Your task to perform on an android device: Open wifi settings Image 0: 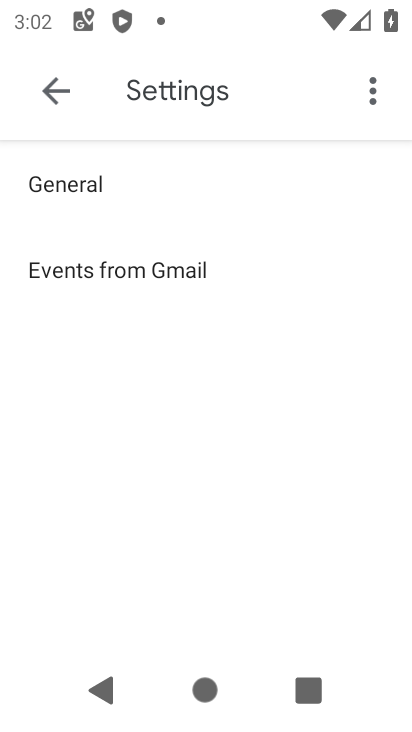
Step 0: press home button
Your task to perform on an android device: Open wifi settings Image 1: 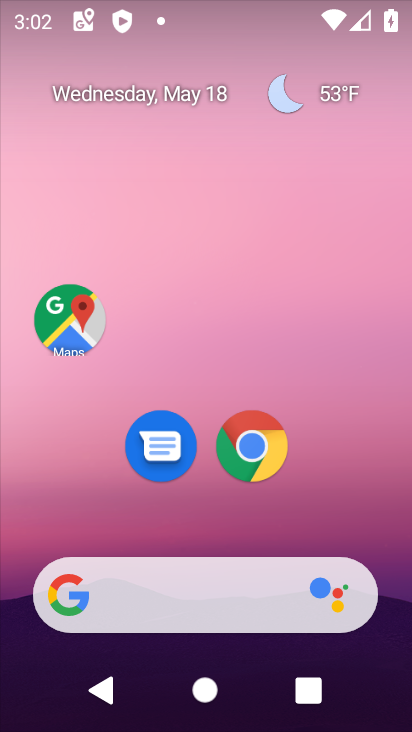
Step 1: drag from (331, 535) to (270, 433)
Your task to perform on an android device: Open wifi settings Image 2: 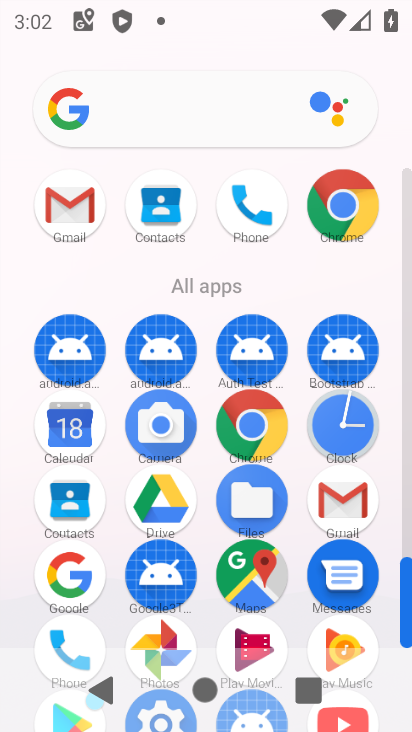
Step 2: drag from (221, 7) to (188, 410)
Your task to perform on an android device: Open wifi settings Image 3: 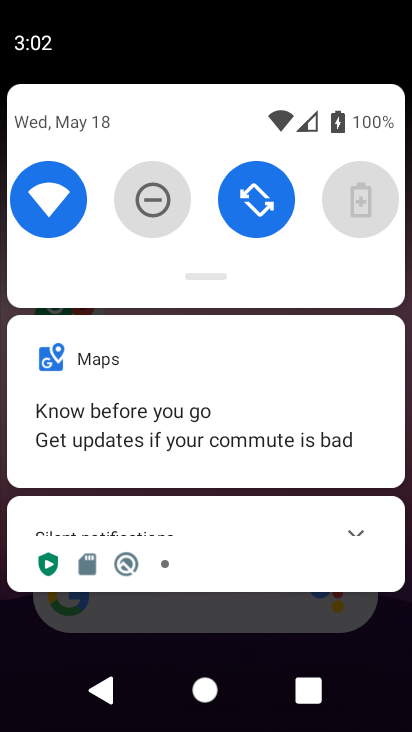
Step 3: click (55, 202)
Your task to perform on an android device: Open wifi settings Image 4: 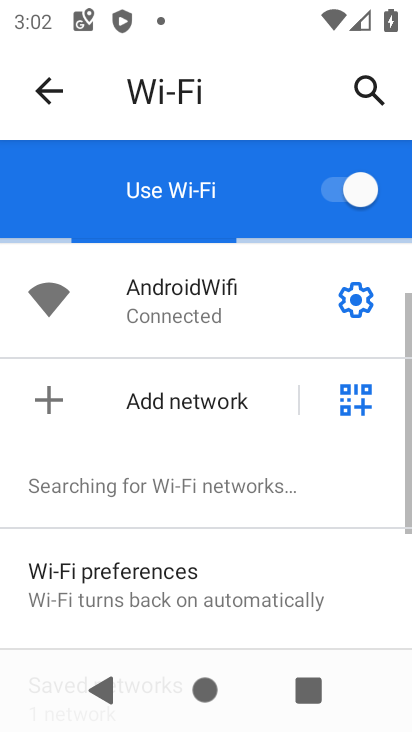
Step 4: task complete